Your task to perform on an android device: change the clock style Image 0: 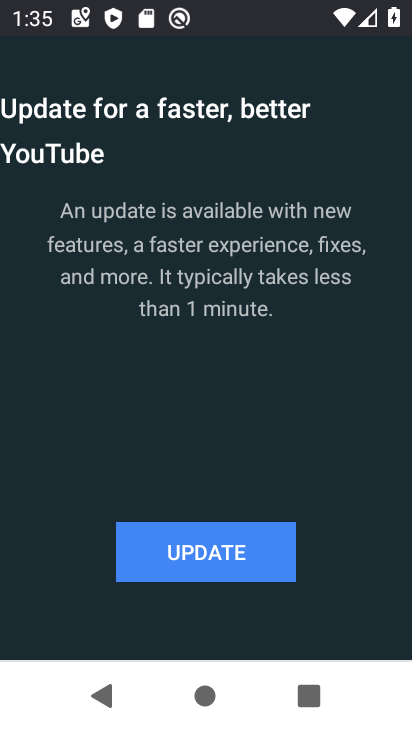
Step 0: press home button
Your task to perform on an android device: change the clock style Image 1: 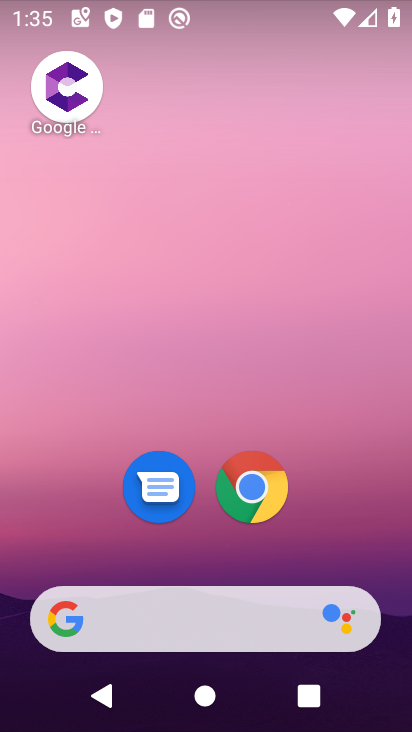
Step 1: drag from (404, 478) to (266, 39)
Your task to perform on an android device: change the clock style Image 2: 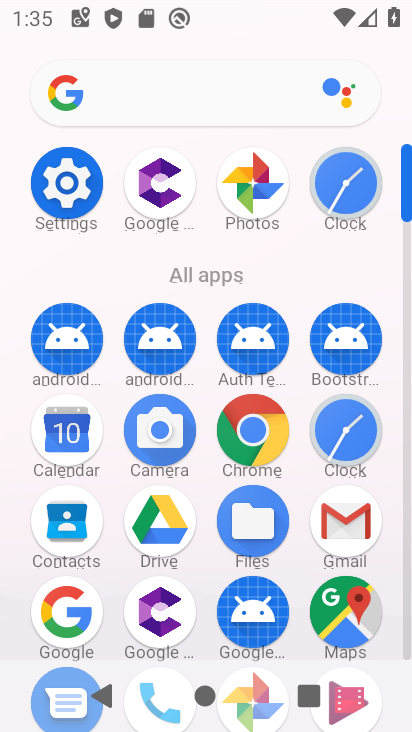
Step 2: click (355, 435)
Your task to perform on an android device: change the clock style Image 3: 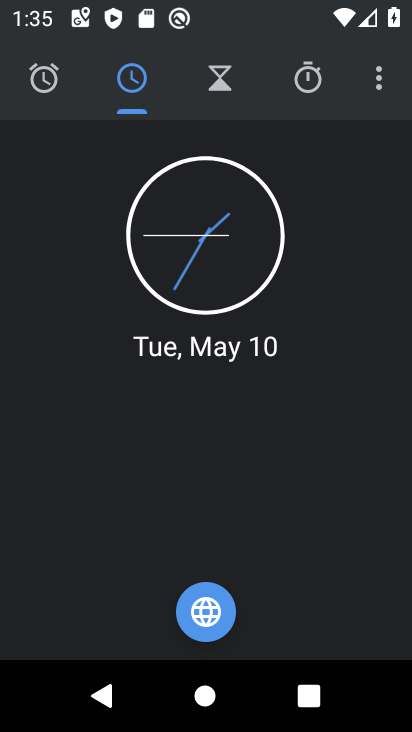
Step 3: drag from (373, 74) to (325, 390)
Your task to perform on an android device: change the clock style Image 4: 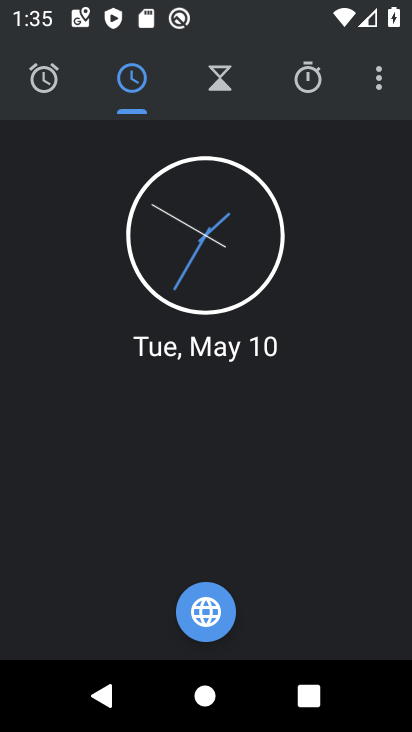
Step 4: click (377, 83)
Your task to perform on an android device: change the clock style Image 5: 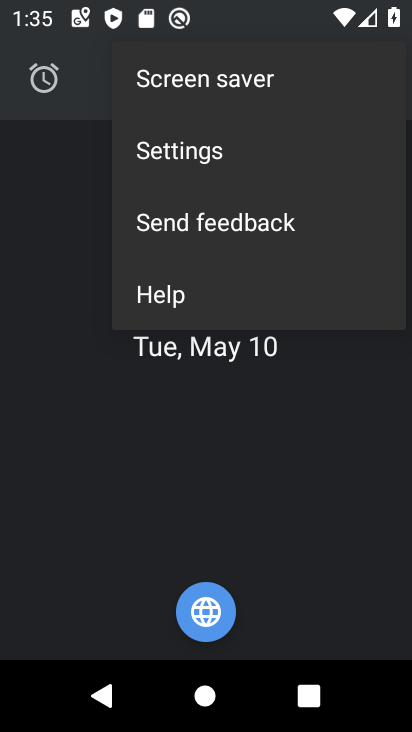
Step 5: click (224, 152)
Your task to perform on an android device: change the clock style Image 6: 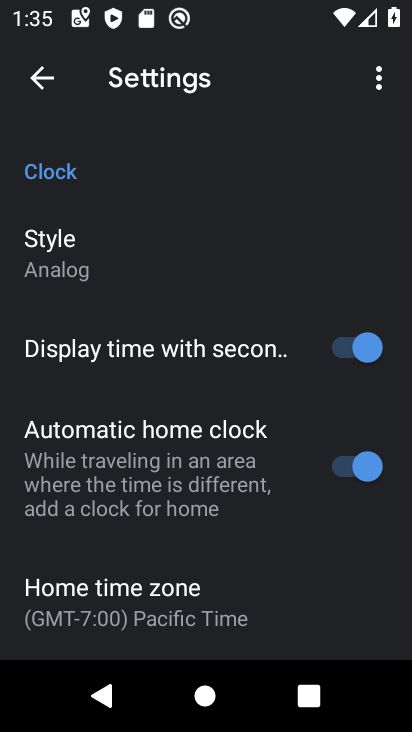
Step 6: click (71, 260)
Your task to perform on an android device: change the clock style Image 7: 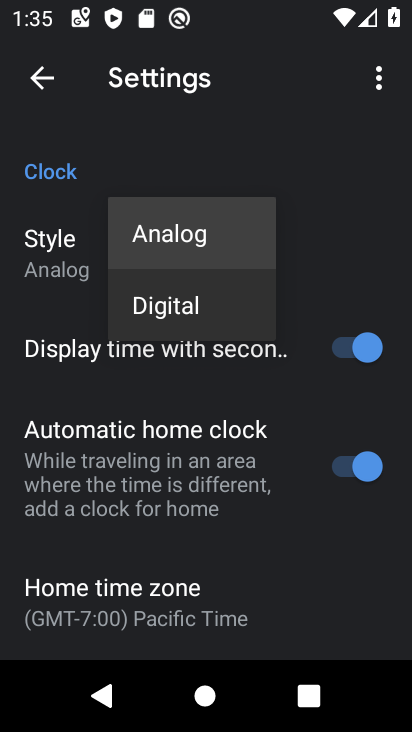
Step 7: click (180, 311)
Your task to perform on an android device: change the clock style Image 8: 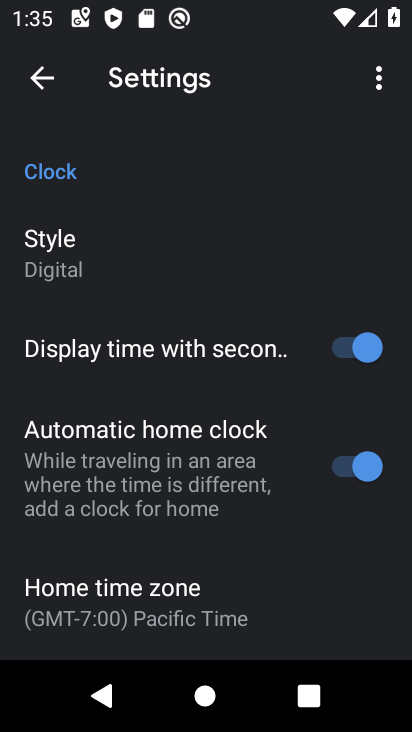
Step 8: task complete